Your task to perform on an android device: uninstall "Venmo" Image 0: 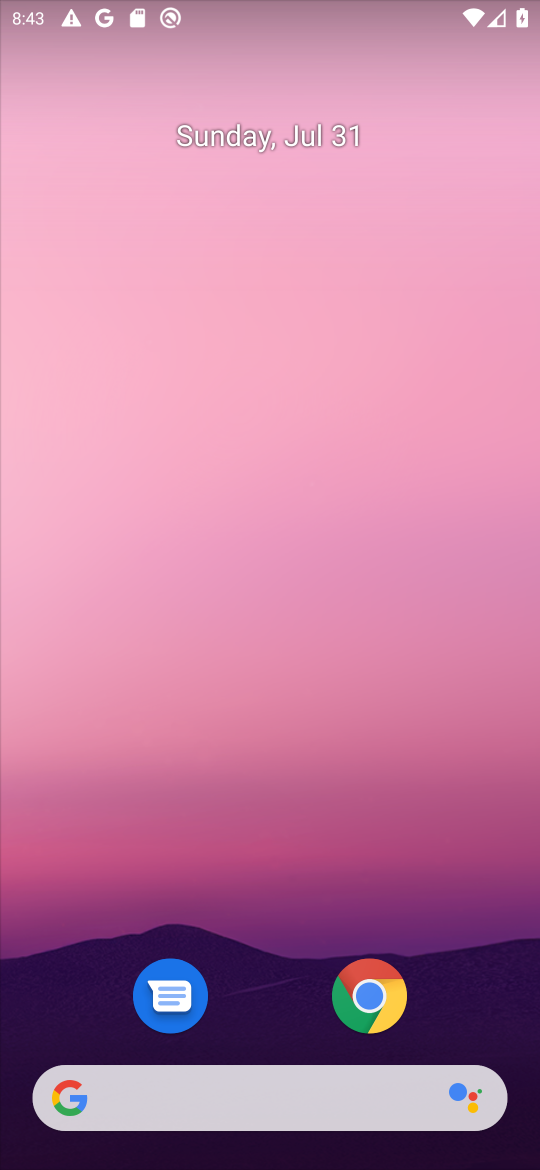
Step 0: drag from (459, 995) to (488, 253)
Your task to perform on an android device: uninstall "Venmo" Image 1: 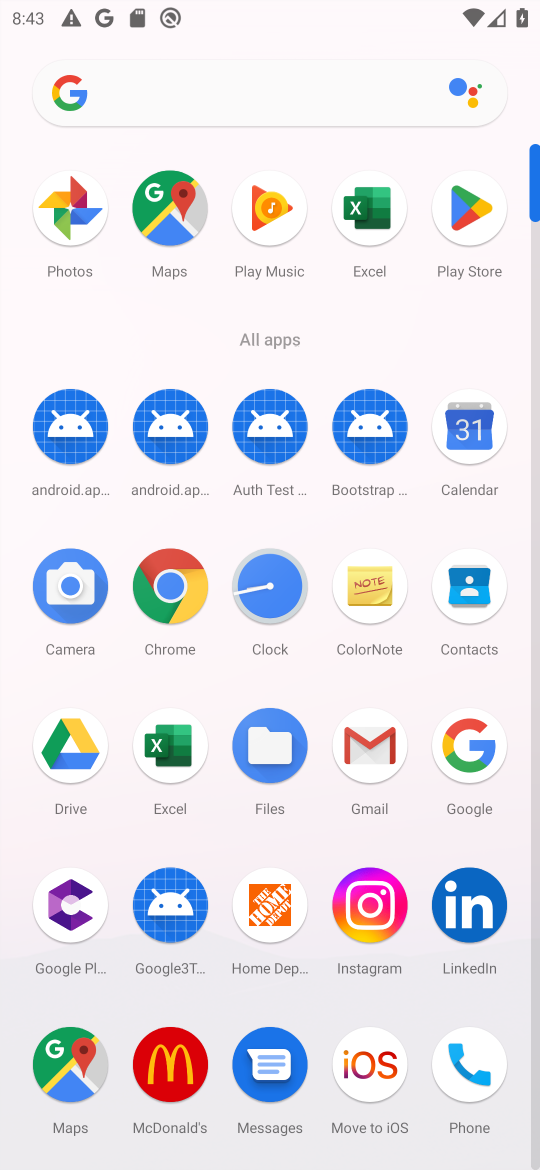
Step 1: click (459, 213)
Your task to perform on an android device: uninstall "Venmo" Image 2: 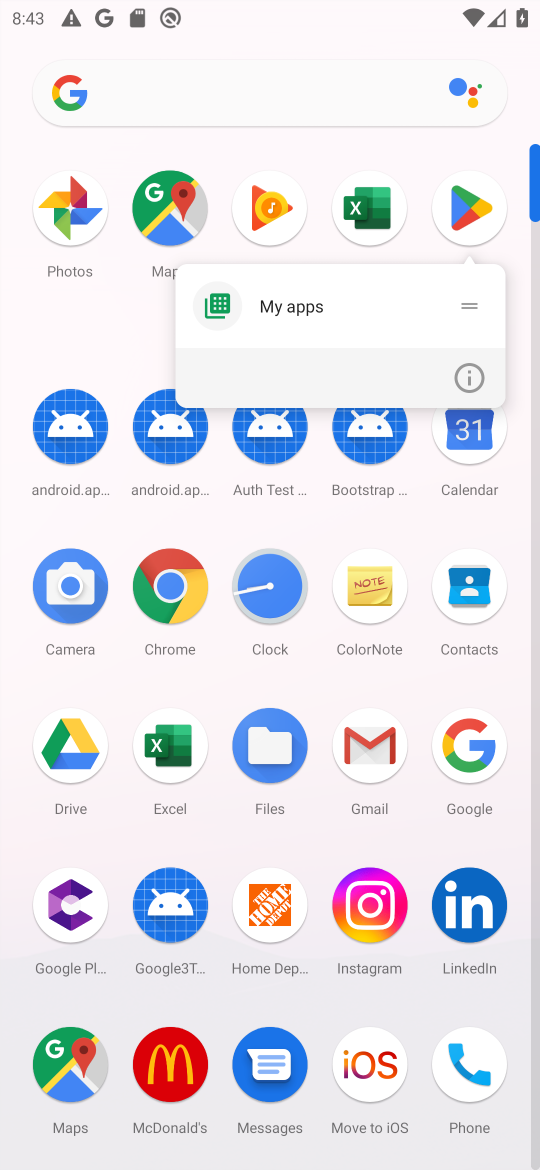
Step 2: click (477, 208)
Your task to perform on an android device: uninstall "Venmo" Image 3: 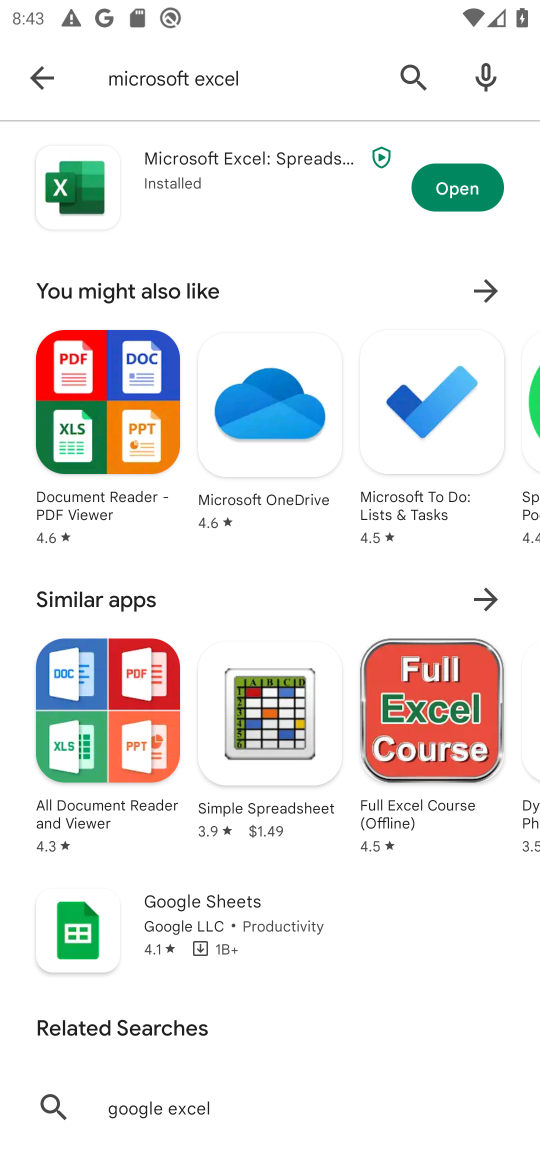
Step 3: press back button
Your task to perform on an android device: uninstall "Venmo" Image 4: 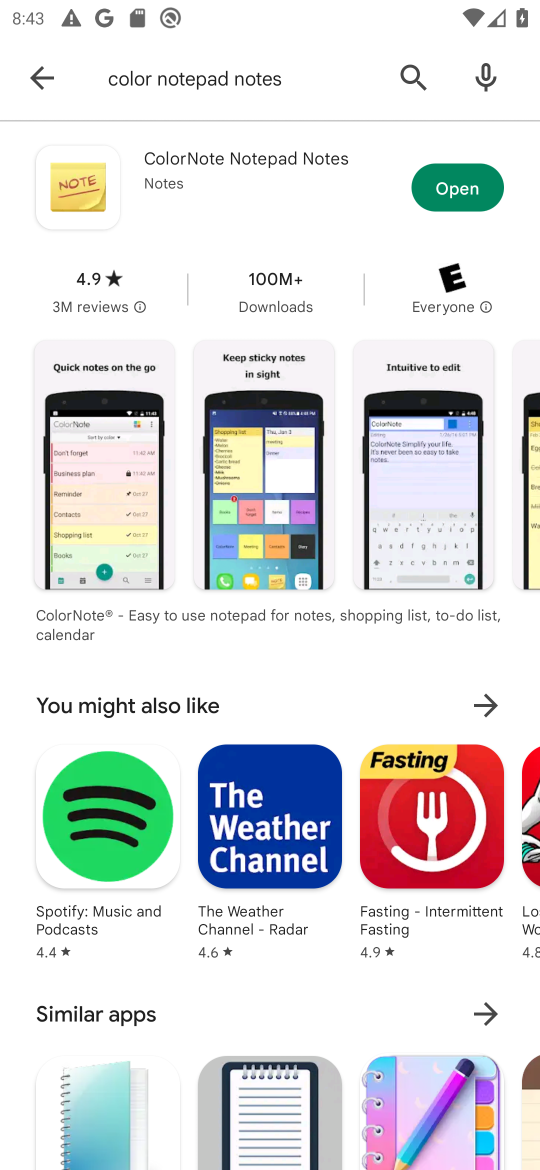
Step 4: click (404, 82)
Your task to perform on an android device: uninstall "Venmo" Image 5: 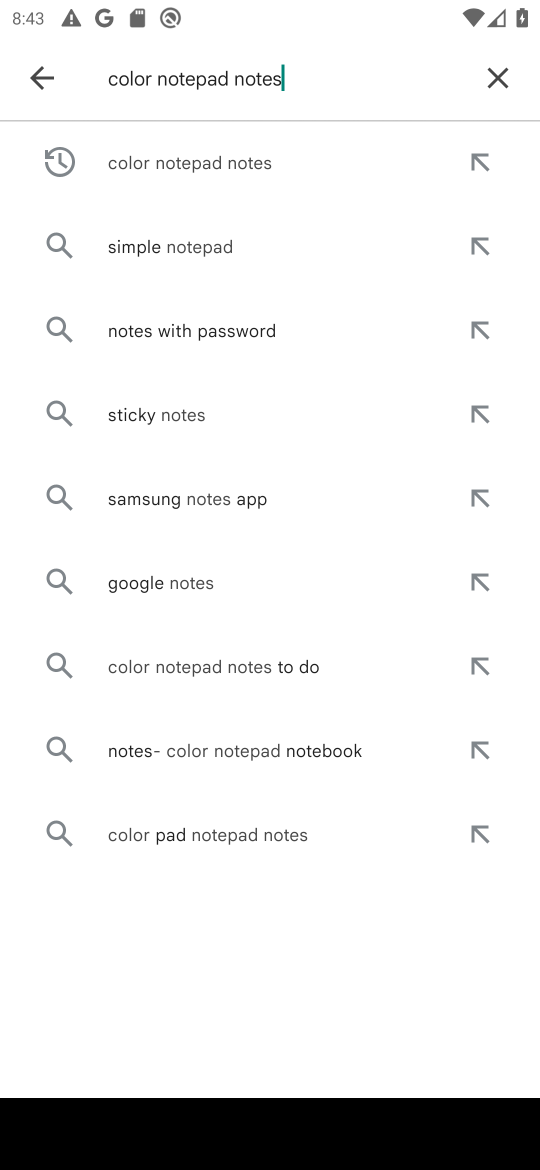
Step 5: click (509, 74)
Your task to perform on an android device: uninstall "Venmo" Image 6: 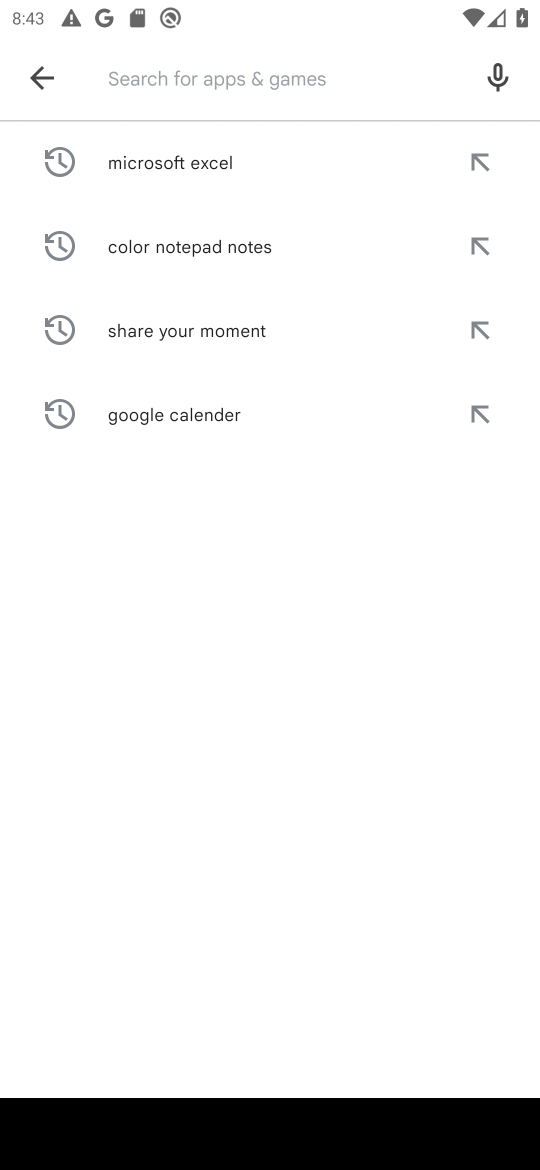
Step 6: click (286, 100)
Your task to perform on an android device: uninstall "Venmo" Image 7: 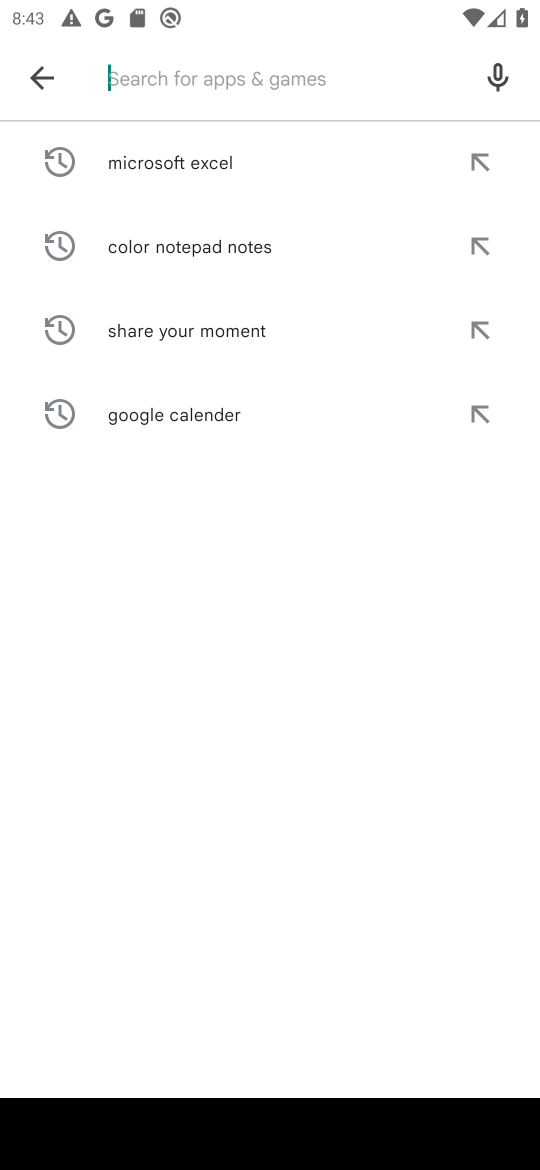
Step 7: type "venmo"
Your task to perform on an android device: uninstall "Venmo" Image 8: 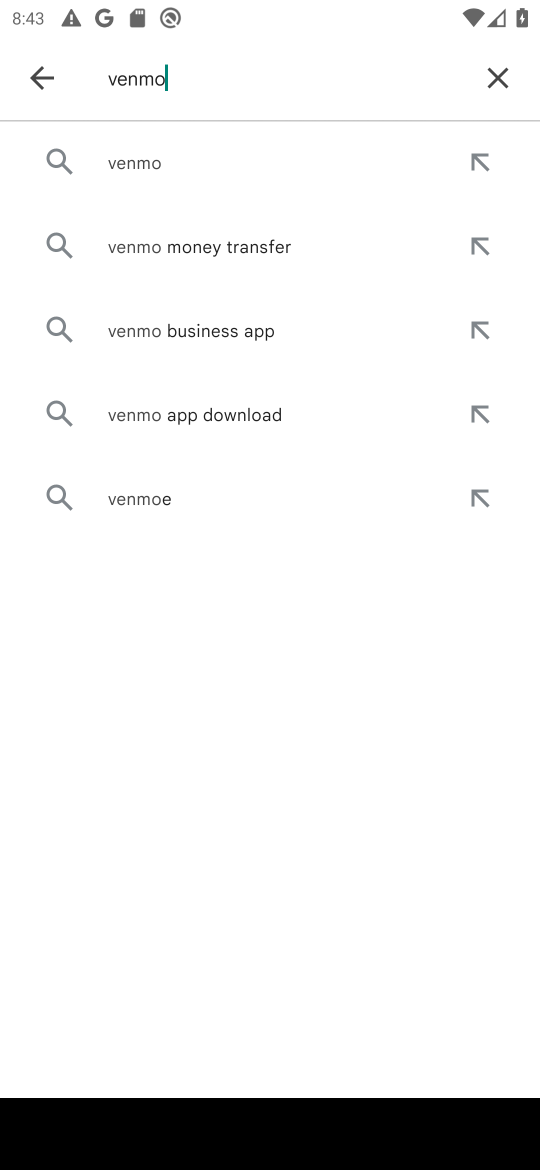
Step 8: click (174, 160)
Your task to perform on an android device: uninstall "Venmo" Image 9: 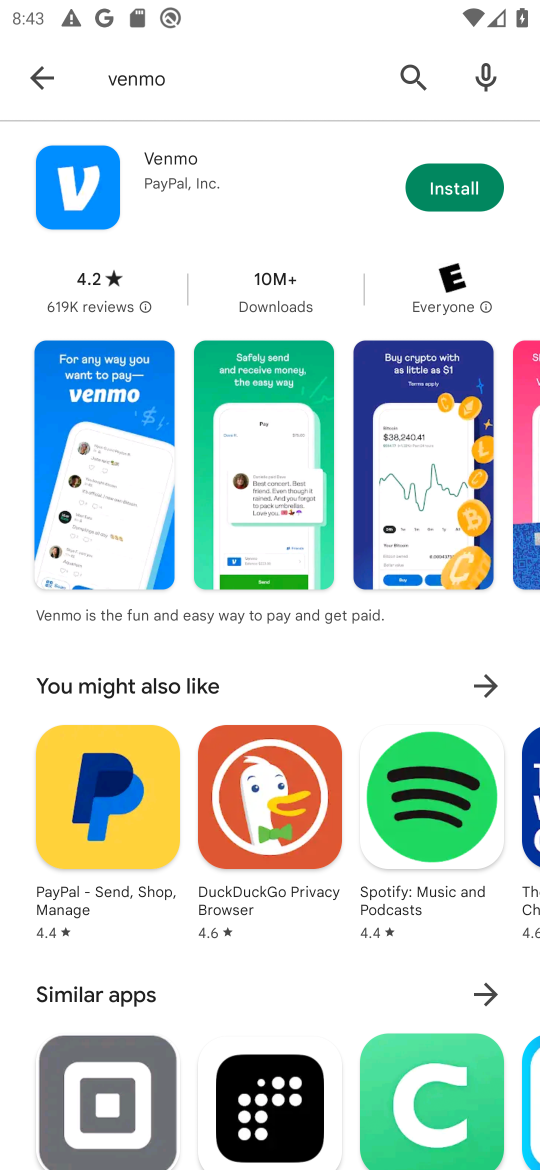
Step 9: task complete